Your task to perform on an android device: open app "Google Play Music" Image 0: 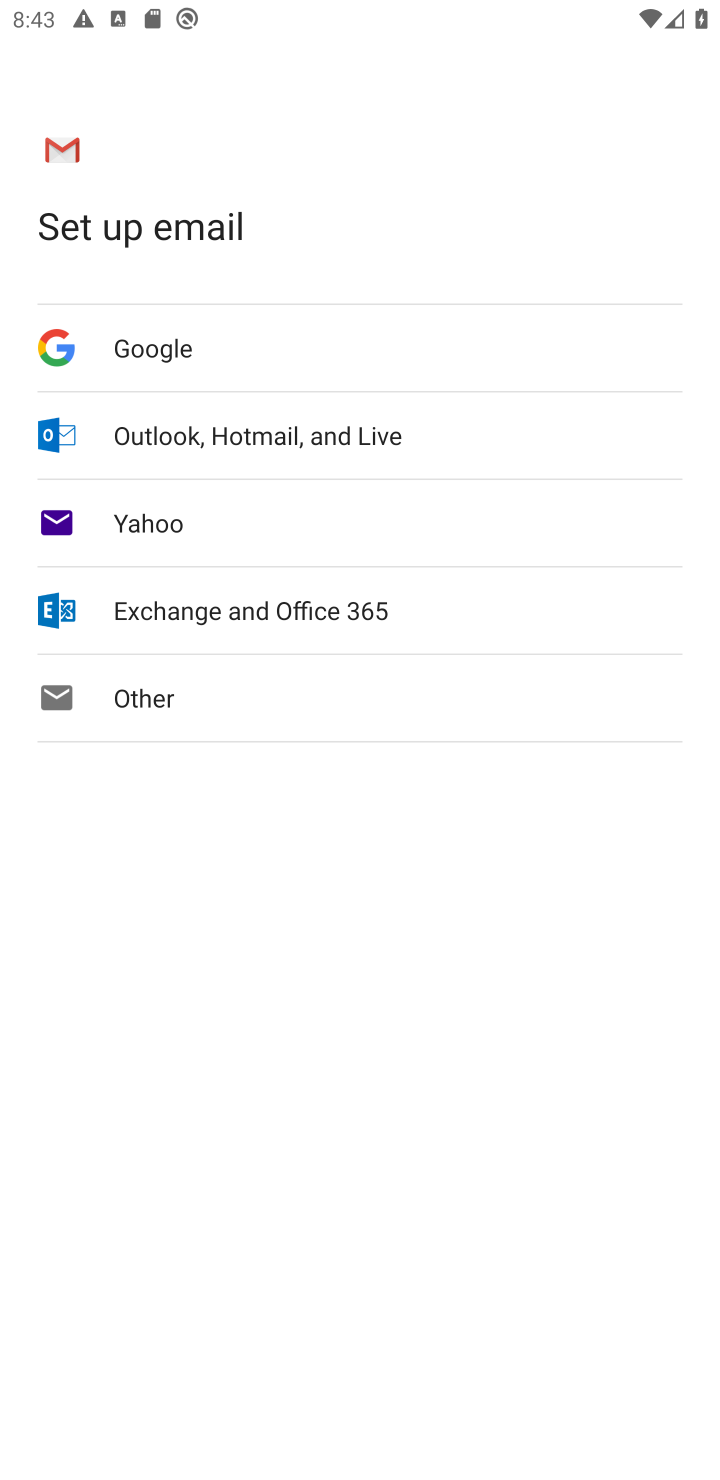
Step 0: press home button
Your task to perform on an android device: open app "Google Play Music" Image 1: 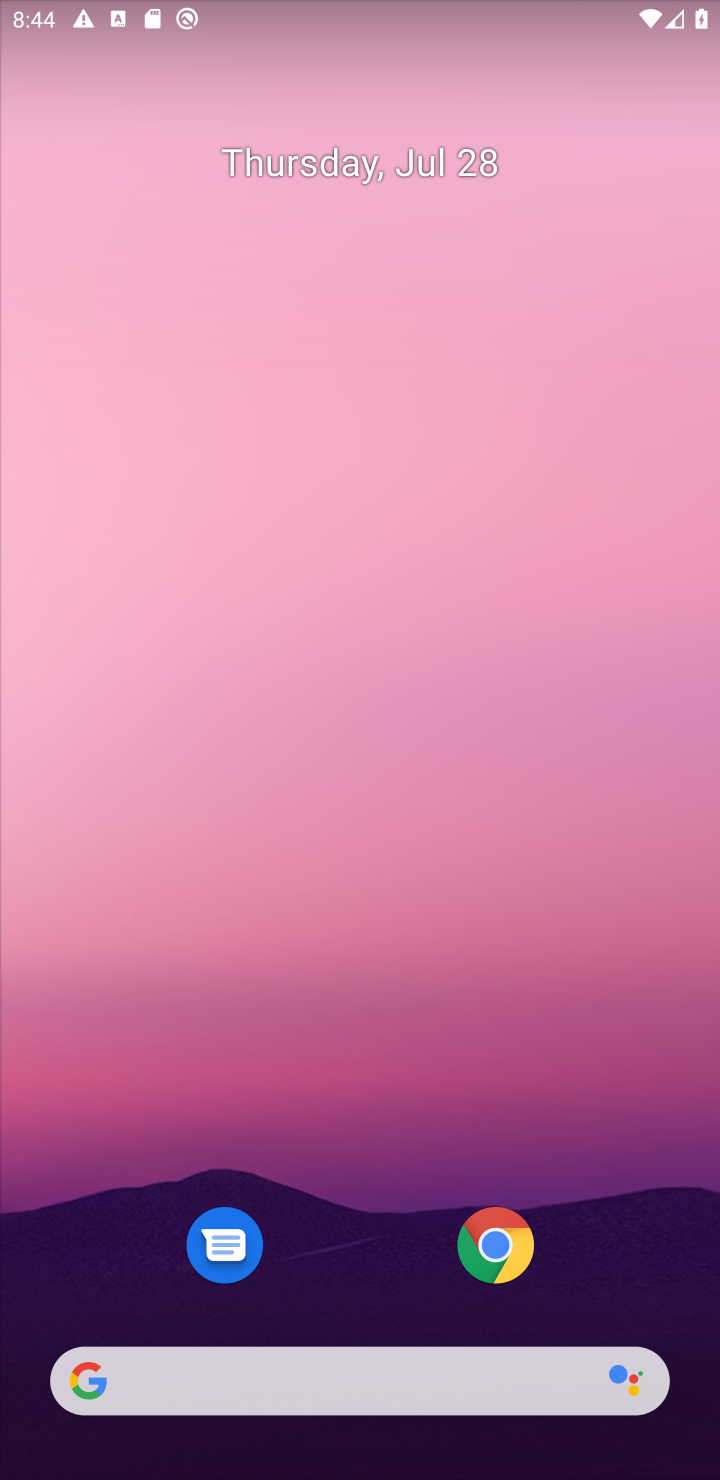
Step 1: drag from (358, 1270) to (369, 274)
Your task to perform on an android device: open app "Google Play Music" Image 2: 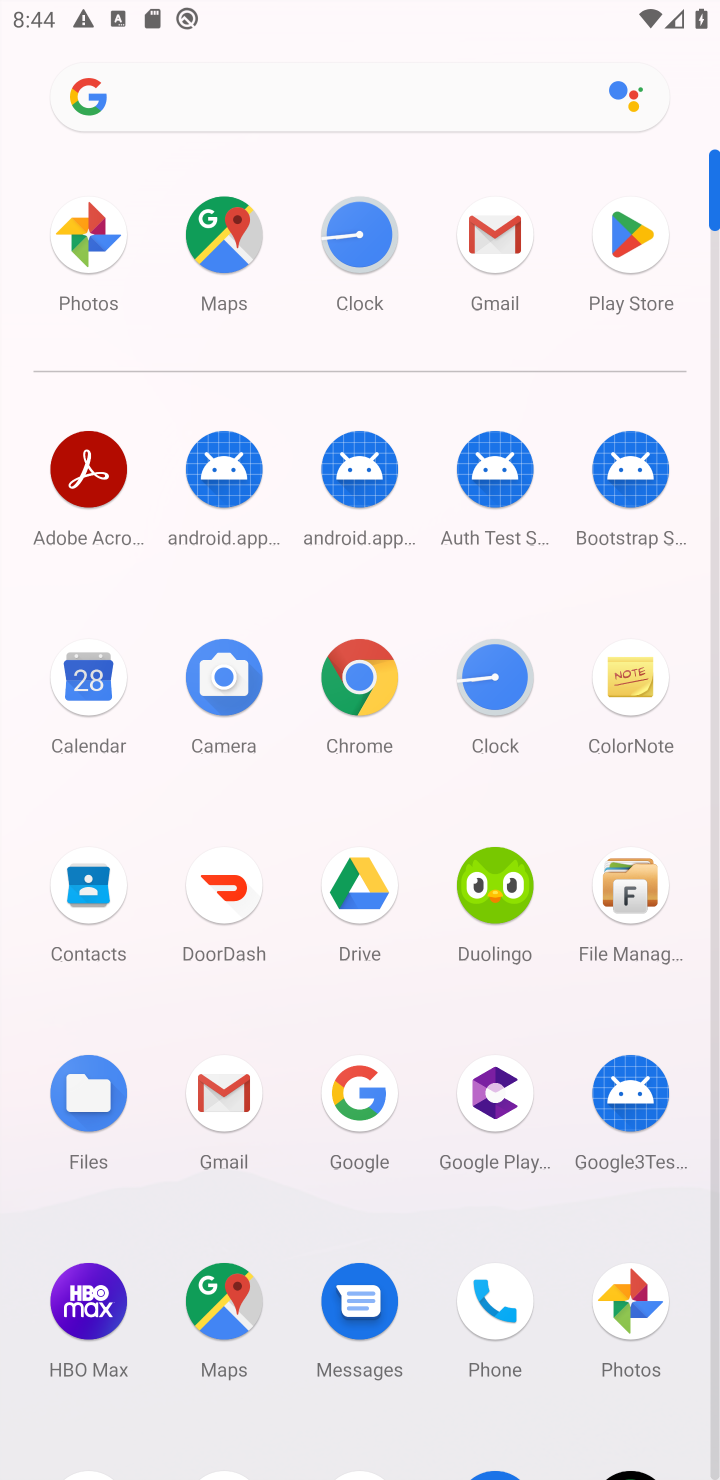
Step 2: click (636, 209)
Your task to perform on an android device: open app "Google Play Music" Image 3: 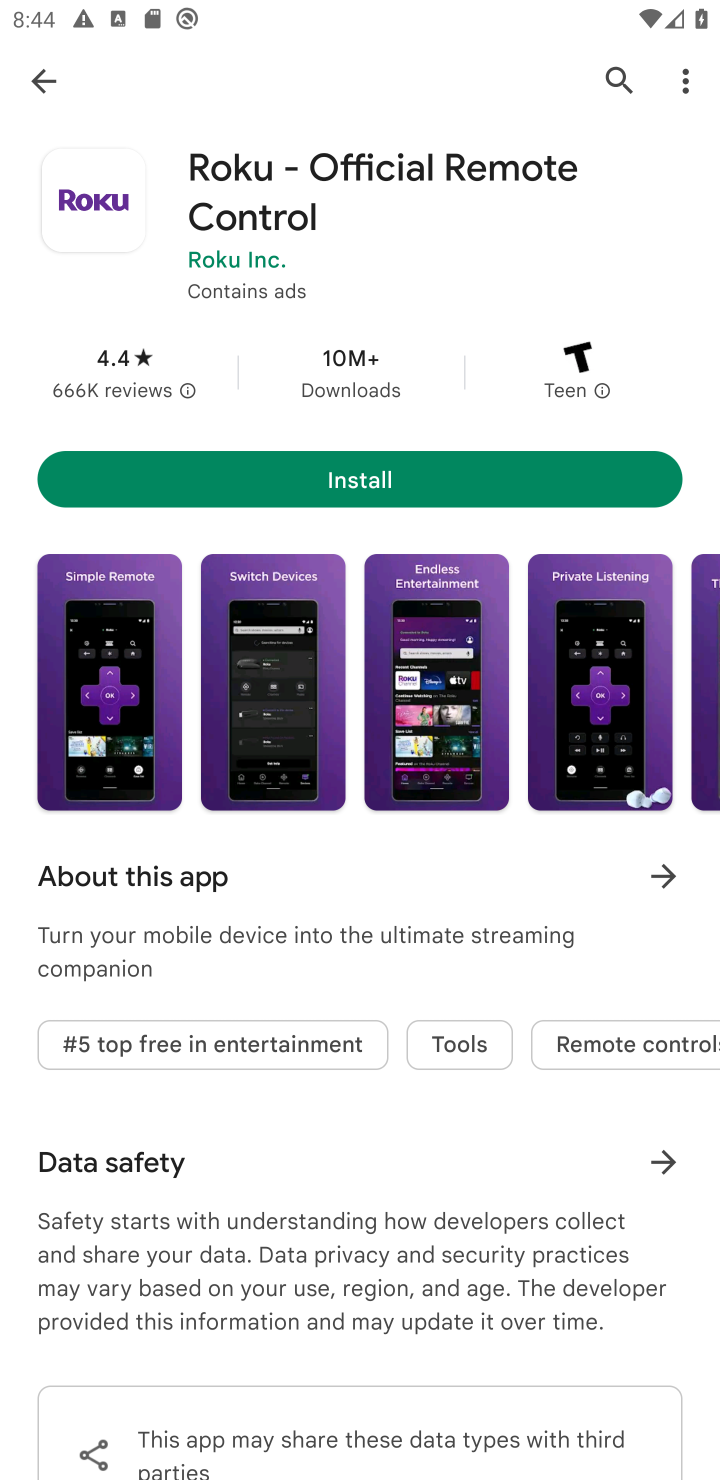
Step 3: click (604, 68)
Your task to perform on an android device: open app "Google Play Music" Image 4: 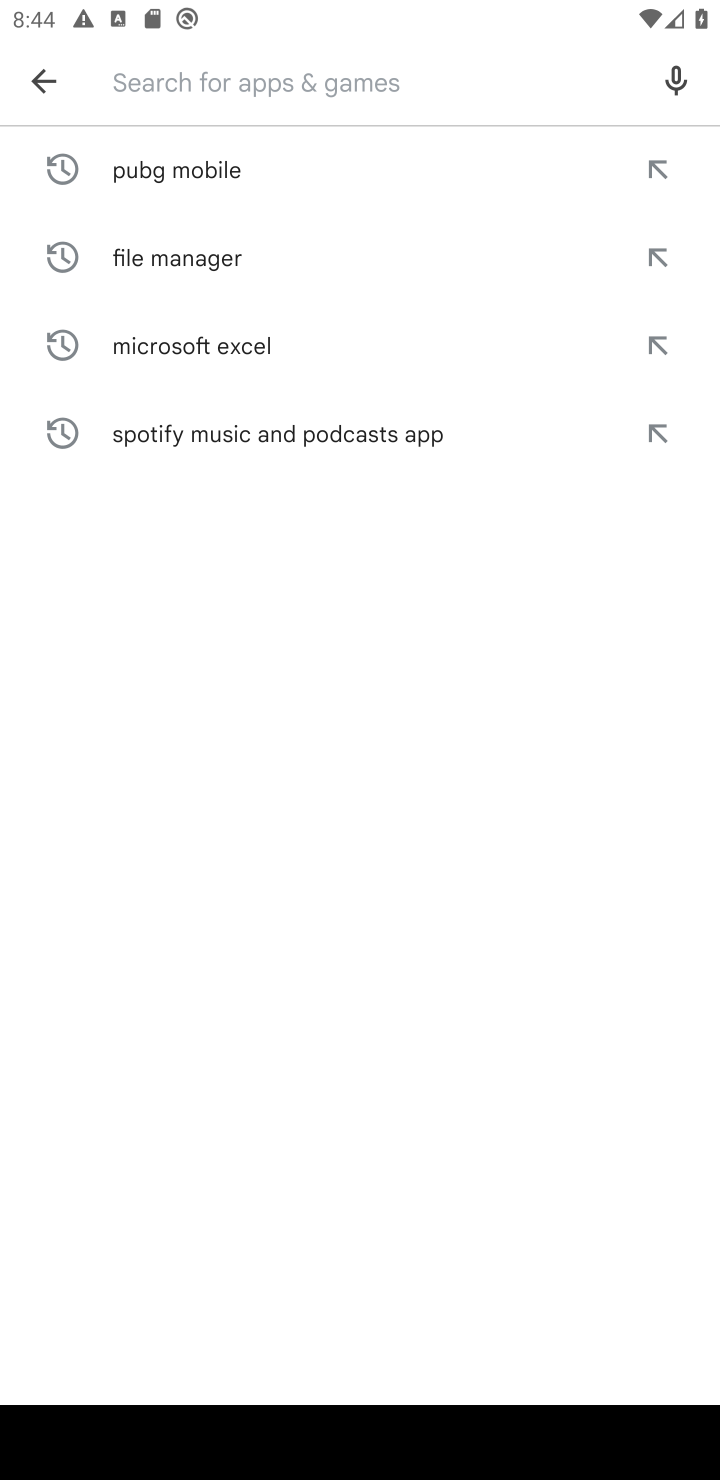
Step 4: type "google play music"
Your task to perform on an android device: open app "Google Play Music" Image 5: 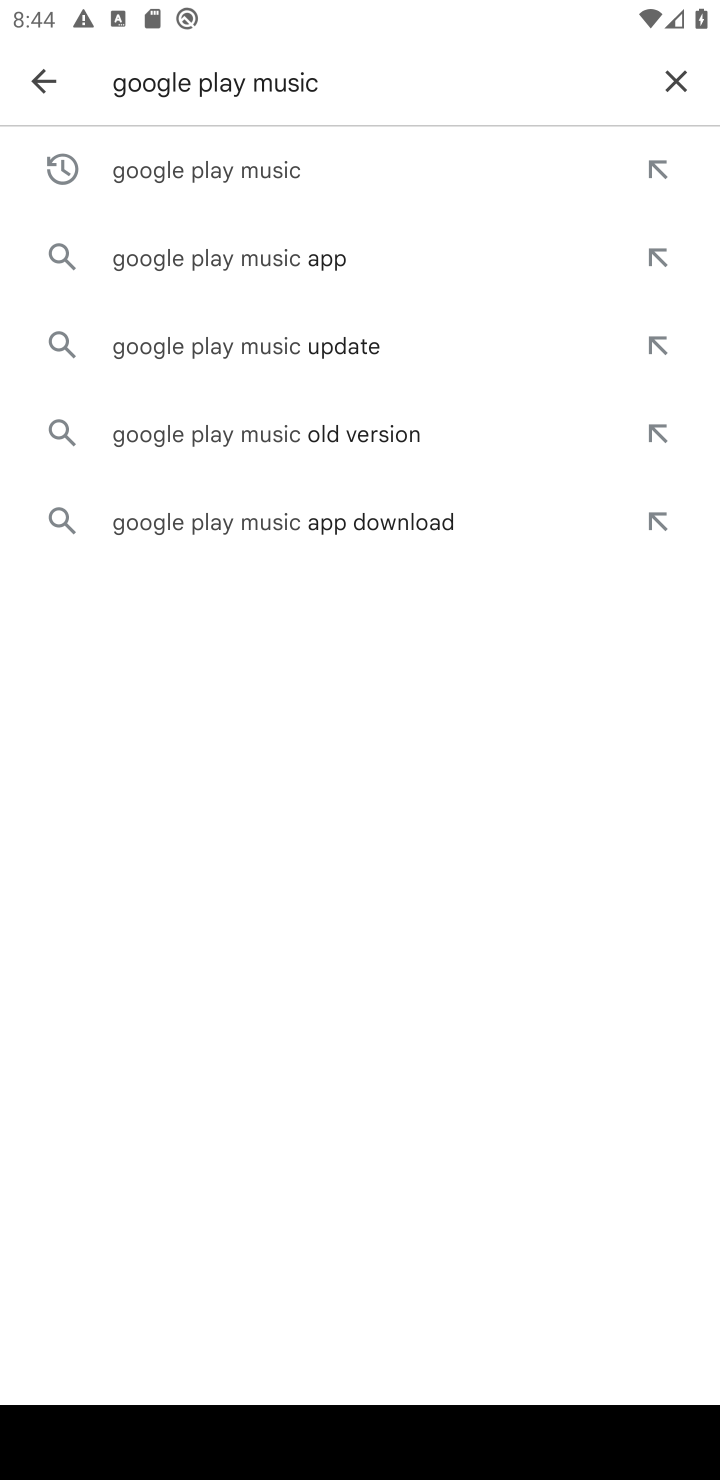
Step 5: click (187, 156)
Your task to perform on an android device: open app "Google Play Music" Image 6: 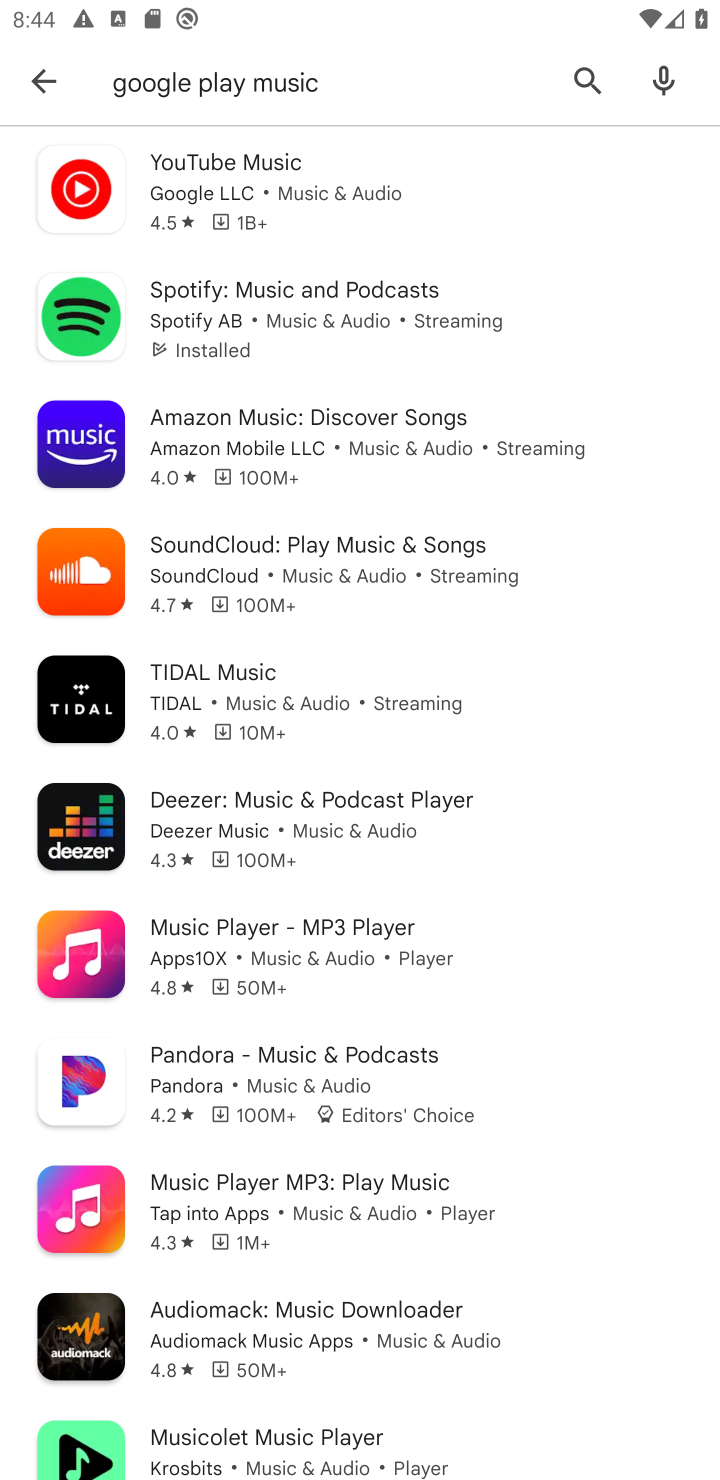
Step 6: task complete